Your task to perform on an android device: clear all cookies in the chrome app Image 0: 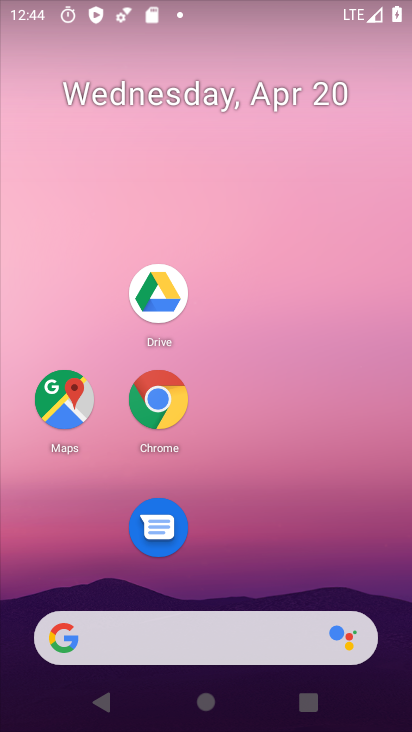
Step 0: drag from (295, 601) to (228, 217)
Your task to perform on an android device: clear all cookies in the chrome app Image 1: 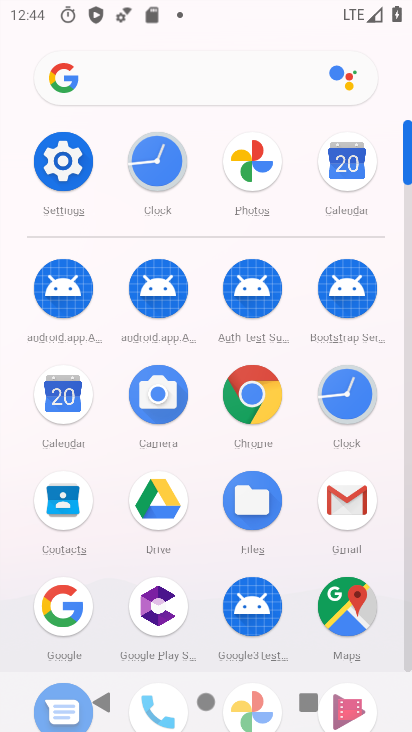
Step 1: click (267, 400)
Your task to perform on an android device: clear all cookies in the chrome app Image 2: 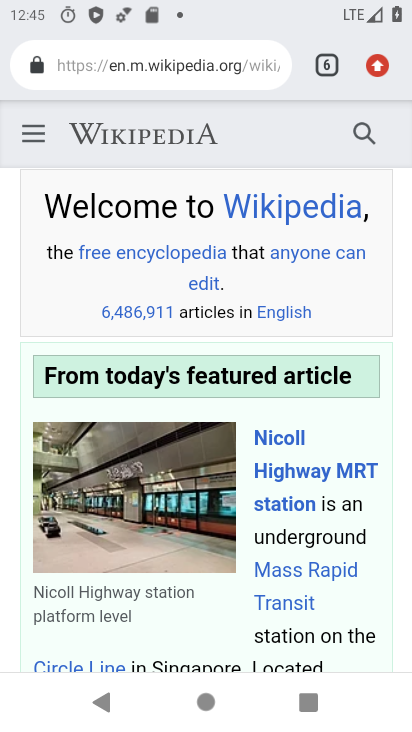
Step 2: click (382, 62)
Your task to perform on an android device: clear all cookies in the chrome app Image 3: 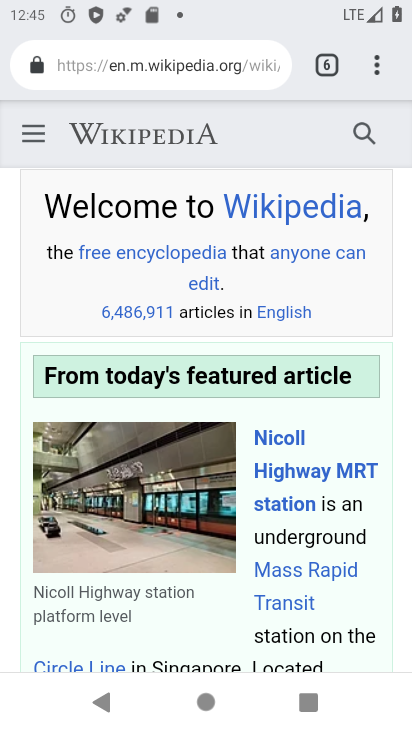
Step 3: click (372, 68)
Your task to perform on an android device: clear all cookies in the chrome app Image 4: 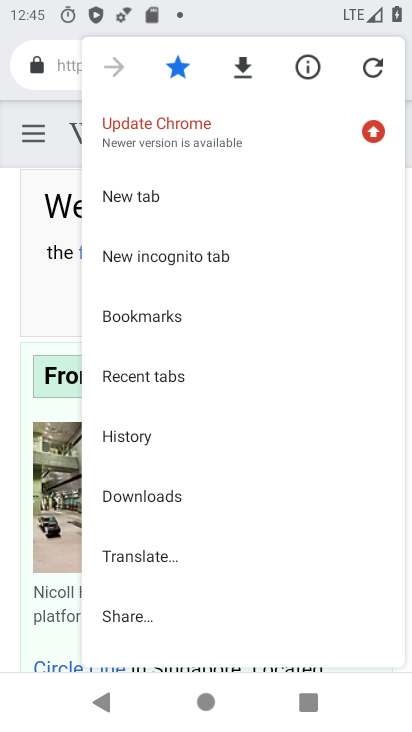
Step 4: drag from (166, 567) to (186, 514)
Your task to perform on an android device: clear all cookies in the chrome app Image 5: 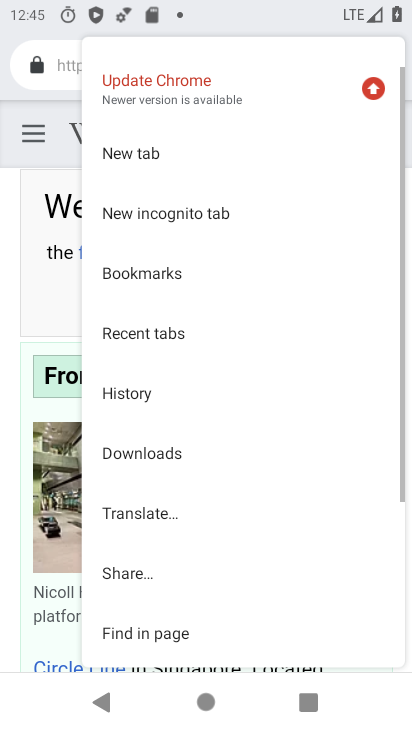
Step 5: click (173, 388)
Your task to perform on an android device: clear all cookies in the chrome app Image 6: 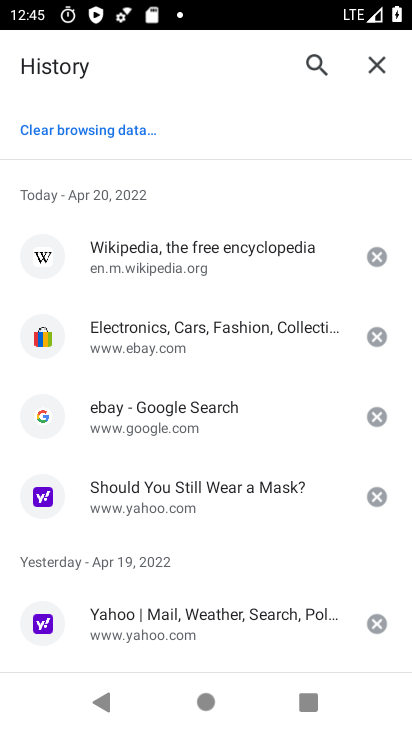
Step 6: click (59, 128)
Your task to perform on an android device: clear all cookies in the chrome app Image 7: 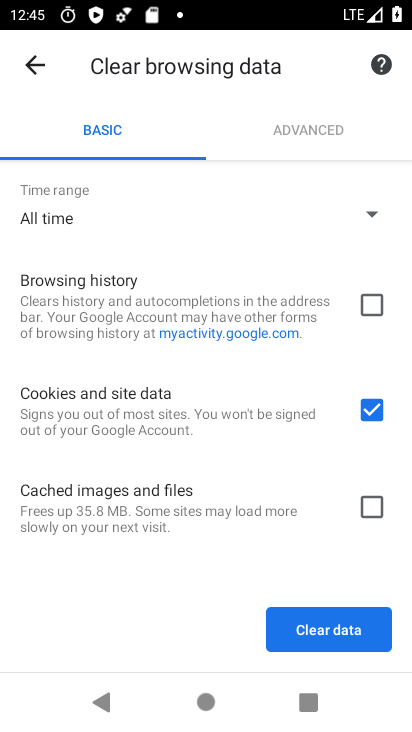
Step 7: click (359, 623)
Your task to perform on an android device: clear all cookies in the chrome app Image 8: 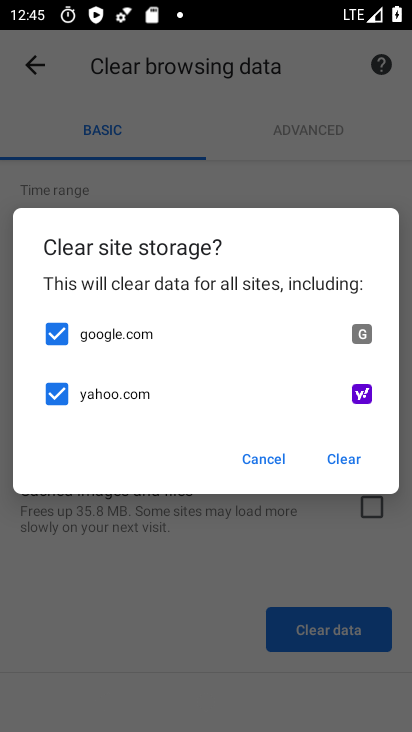
Step 8: task complete